Your task to perform on an android device: Open maps Image 0: 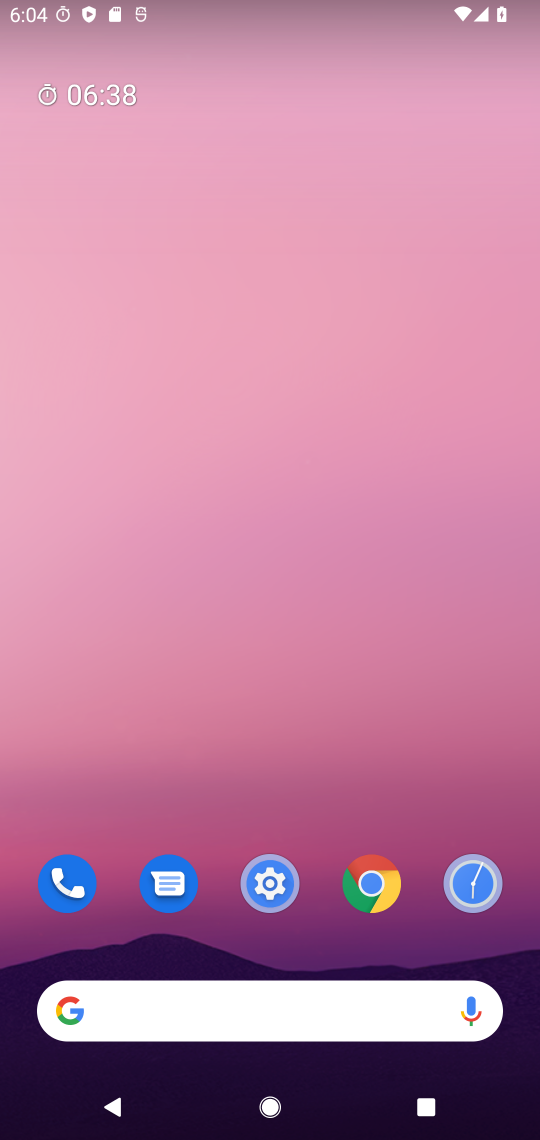
Step 0: drag from (342, 590) to (342, 102)
Your task to perform on an android device: Open maps Image 1: 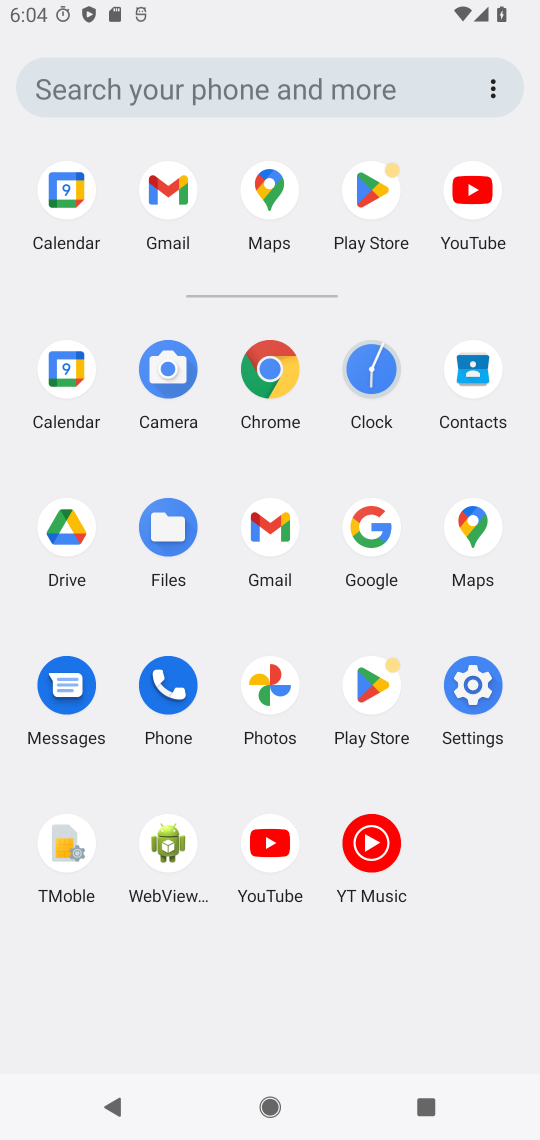
Step 1: click (449, 524)
Your task to perform on an android device: Open maps Image 2: 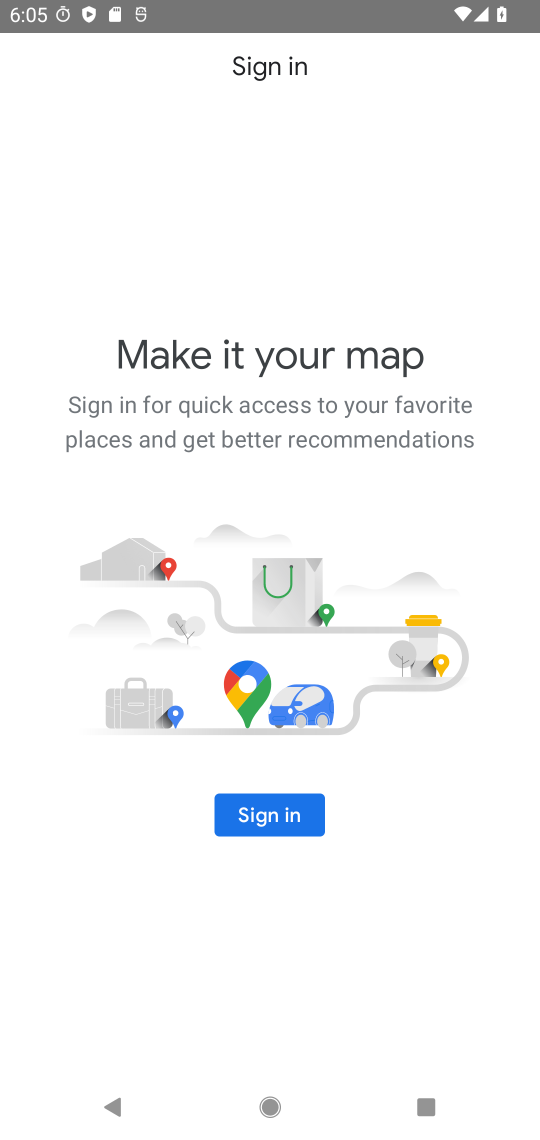
Step 2: task complete